Your task to perform on an android device: find snoozed emails in the gmail app Image 0: 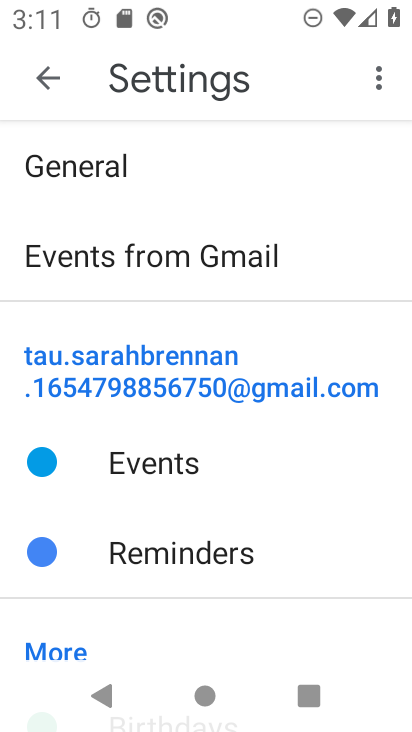
Step 0: press home button
Your task to perform on an android device: find snoozed emails in the gmail app Image 1: 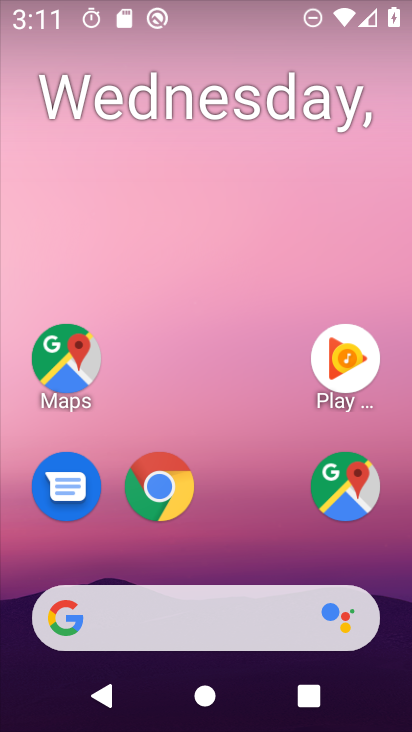
Step 1: drag from (239, 556) to (261, 127)
Your task to perform on an android device: find snoozed emails in the gmail app Image 2: 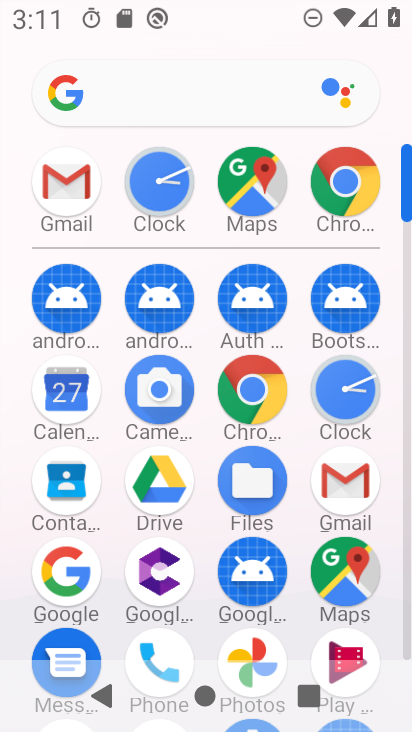
Step 2: click (364, 486)
Your task to perform on an android device: find snoozed emails in the gmail app Image 3: 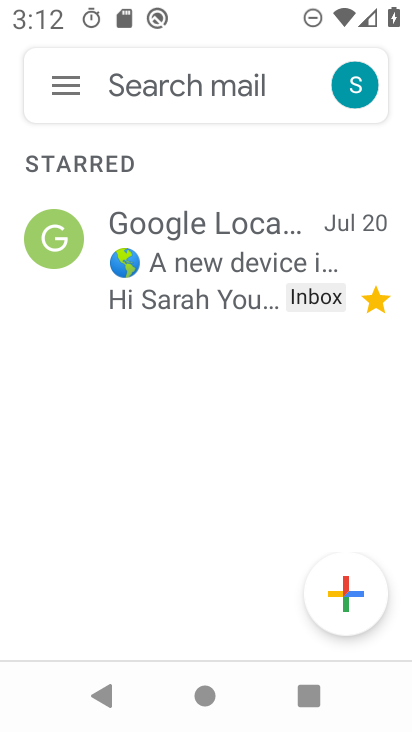
Step 3: click (59, 92)
Your task to perform on an android device: find snoozed emails in the gmail app Image 4: 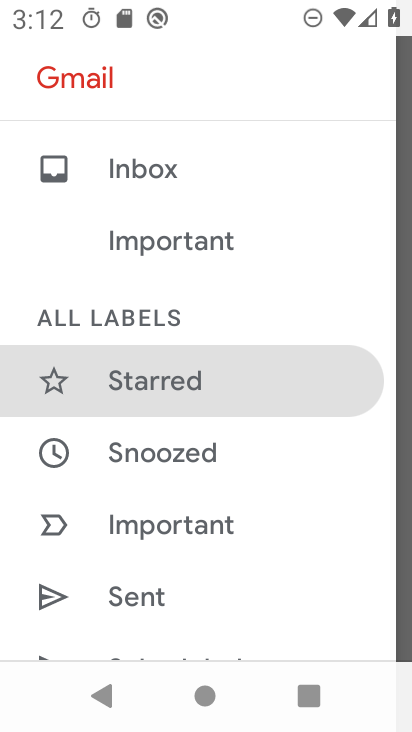
Step 4: click (168, 456)
Your task to perform on an android device: find snoozed emails in the gmail app Image 5: 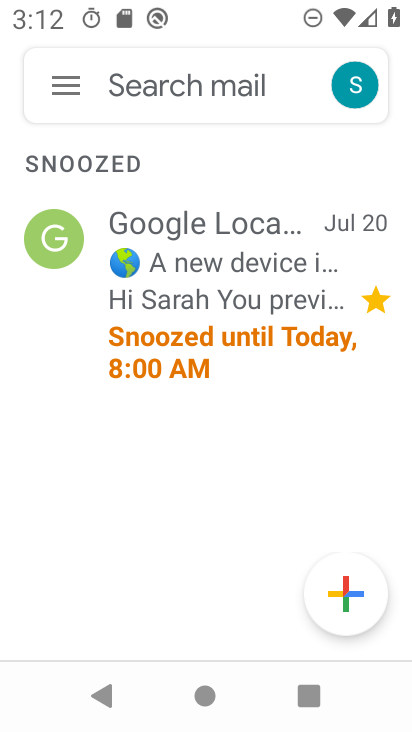
Step 5: task complete